Your task to perform on an android device: Show me popular videos on Youtube Image 0: 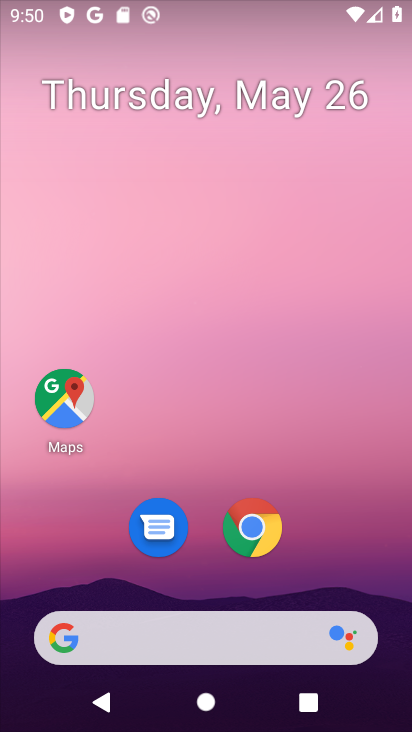
Step 0: drag from (328, 560) to (227, 87)
Your task to perform on an android device: Show me popular videos on Youtube Image 1: 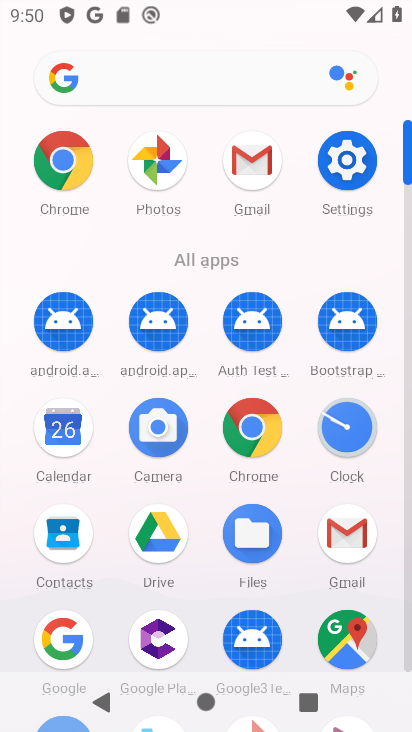
Step 1: drag from (216, 294) to (205, 6)
Your task to perform on an android device: Show me popular videos on Youtube Image 2: 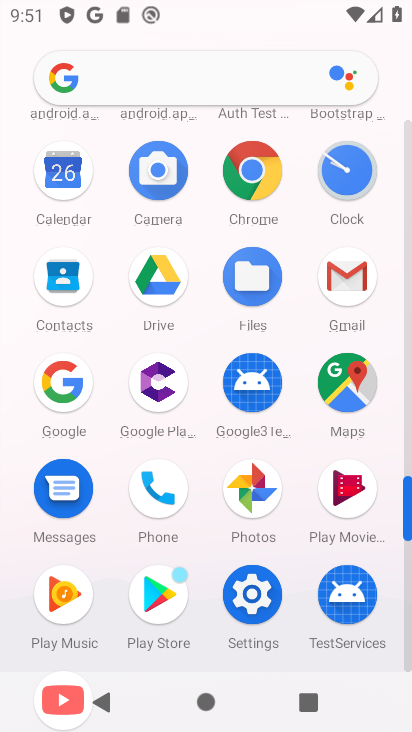
Step 2: drag from (210, 666) to (204, 498)
Your task to perform on an android device: Show me popular videos on Youtube Image 3: 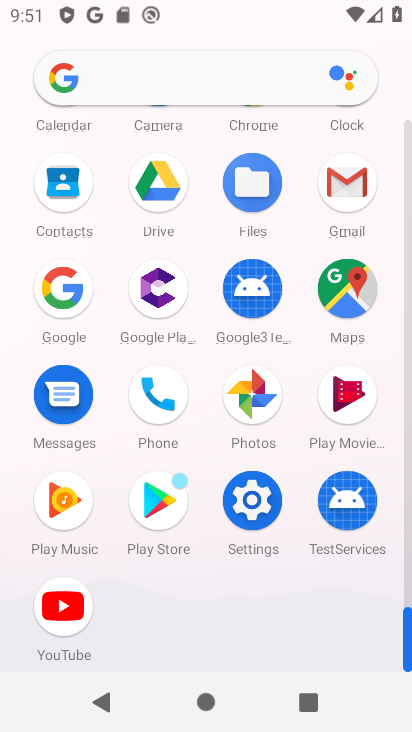
Step 3: click (45, 597)
Your task to perform on an android device: Show me popular videos on Youtube Image 4: 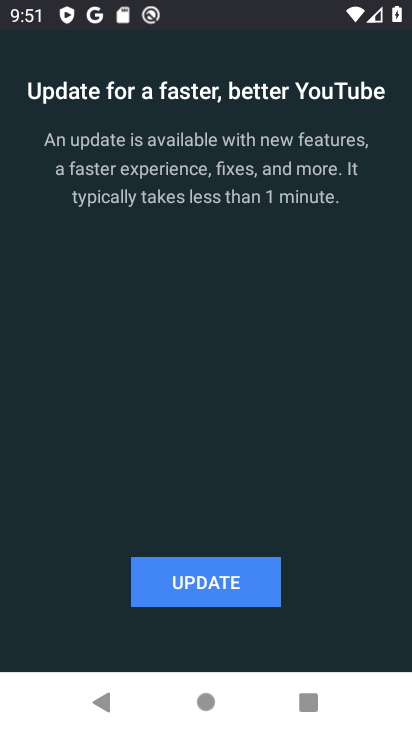
Step 4: click (165, 588)
Your task to perform on an android device: Show me popular videos on Youtube Image 5: 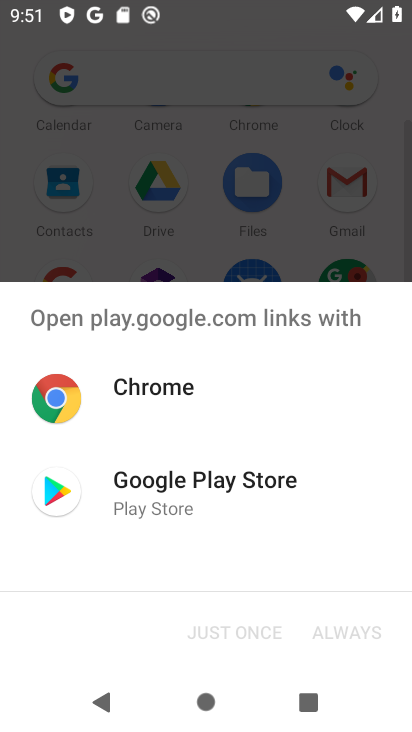
Step 5: click (201, 496)
Your task to perform on an android device: Show me popular videos on Youtube Image 6: 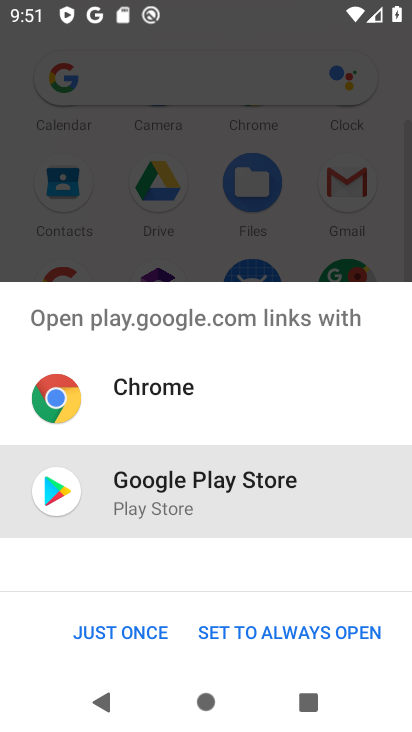
Step 6: click (127, 631)
Your task to perform on an android device: Show me popular videos on Youtube Image 7: 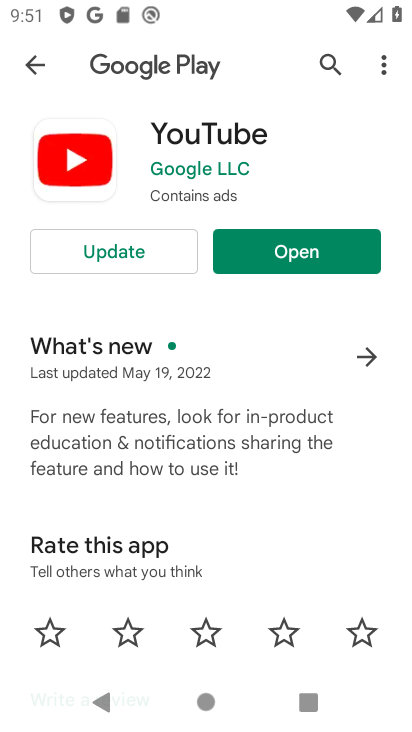
Step 7: click (102, 269)
Your task to perform on an android device: Show me popular videos on Youtube Image 8: 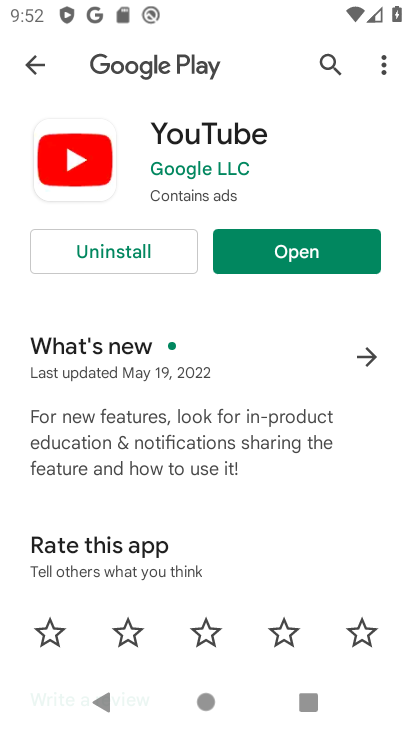
Step 8: click (295, 261)
Your task to perform on an android device: Show me popular videos on Youtube Image 9: 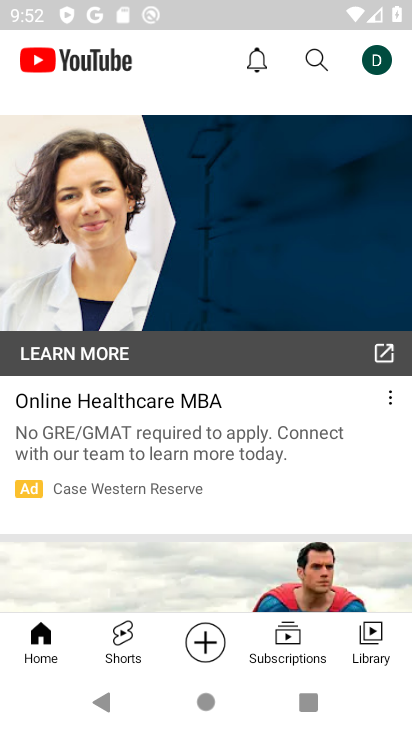
Step 9: click (49, 644)
Your task to perform on an android device: Show me popular videos on Youtube Image 10: 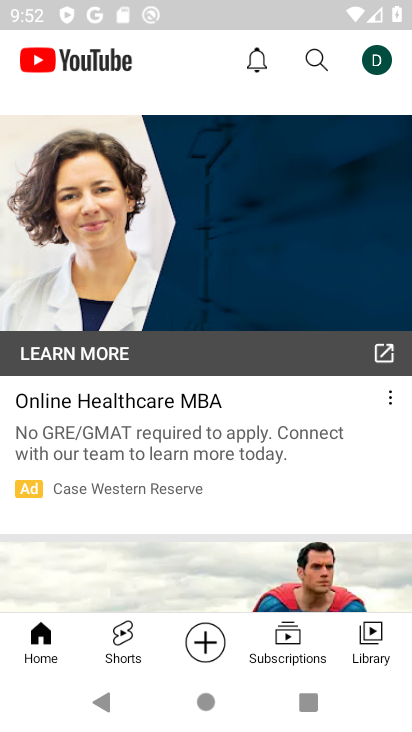
Step 10: drag from (105, 187) to (126, 463)
Your task to perform on an android device: Show me popular videos on Youtube Image 11: 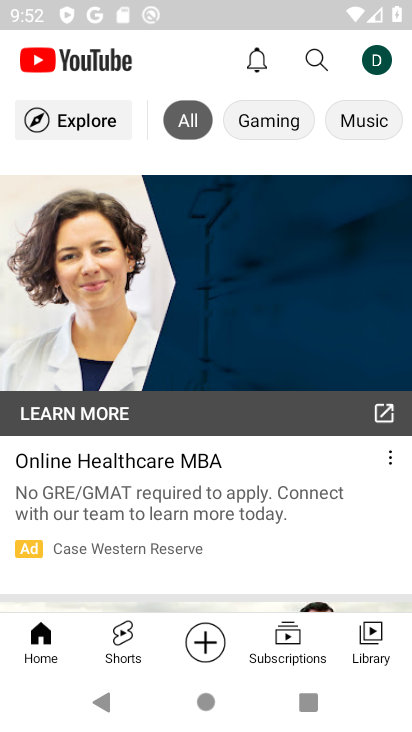
Step 11: click (90, 112)
Your task to perform on an android device: Show me popular videos on Youtube Image 12: 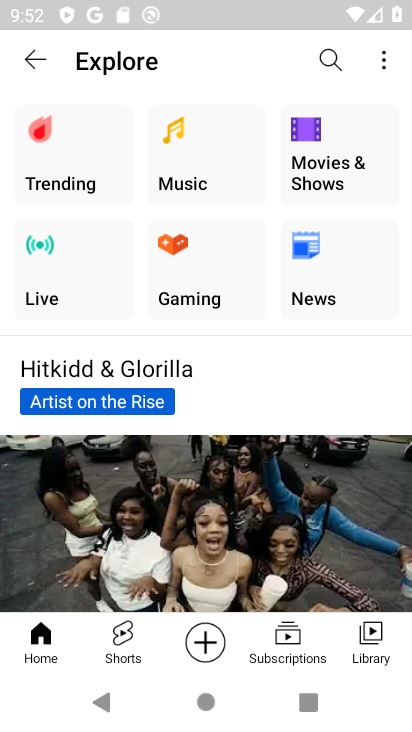
Step 12: click (86, 143)
Your task to perform on an android device: Show me popular videos on Youtube Image 13: 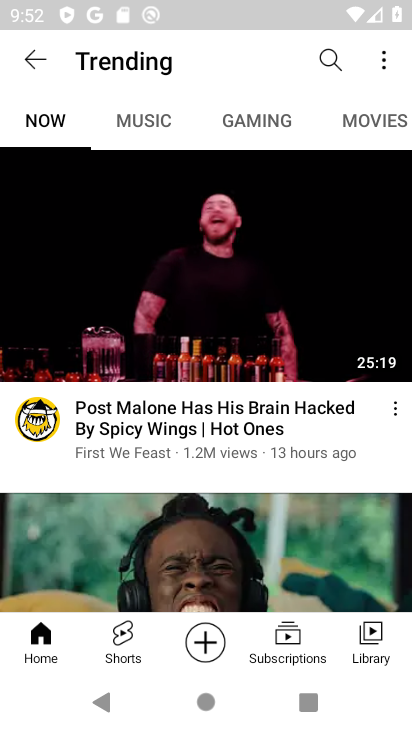
Step 13: task complete